Your task to perform on an android device: Search for "usb-a to usb-b" on target, select the first entry, and add it to the cart. Image 0: 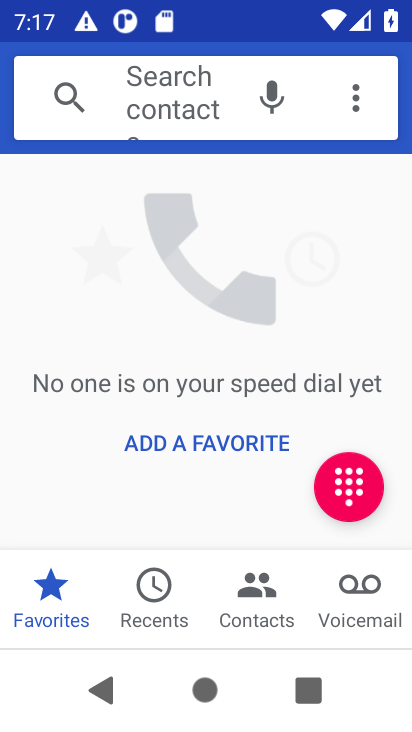
Step 0: press home button
Your task to perform on an android device: Search for "usb-a to usb-b" on target, select the first entry, and add it to the cart. Image 1: 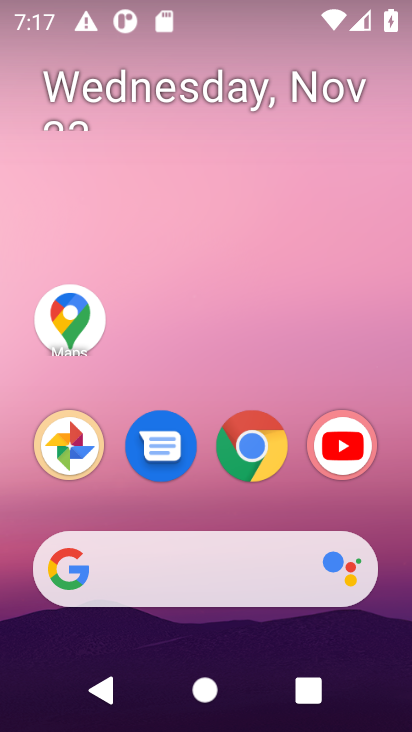
Step 1: click (208, 566)
Your task to perform on an android device: Search for "usb-a to usb-b" on target, select the first entry, and add it to the cart. Image 2: 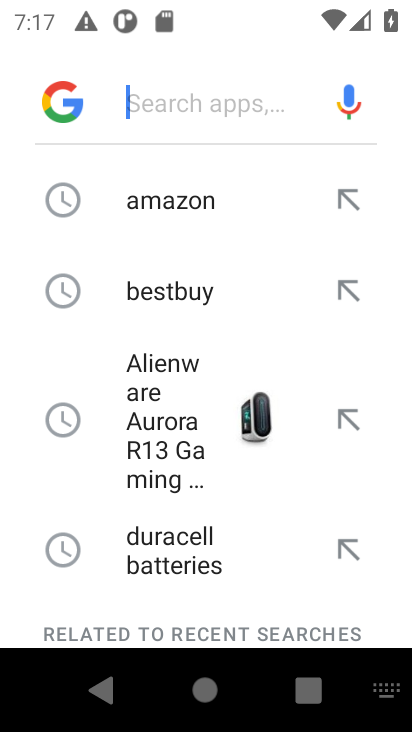
Step 2: type "target.com"
Your task to perform on an android device: Search for "usb-a to usb-b" on target, select the first entry, and add it to the cart. Image 3: 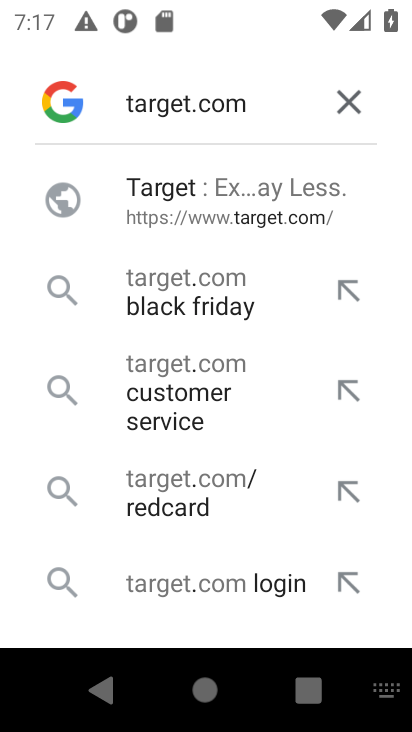
Step 3: click (175, 227)
Your task to perform on an android device: Search for "usb-a to usb-b" on target, select the first entry, and add it to the cart. Image 4: 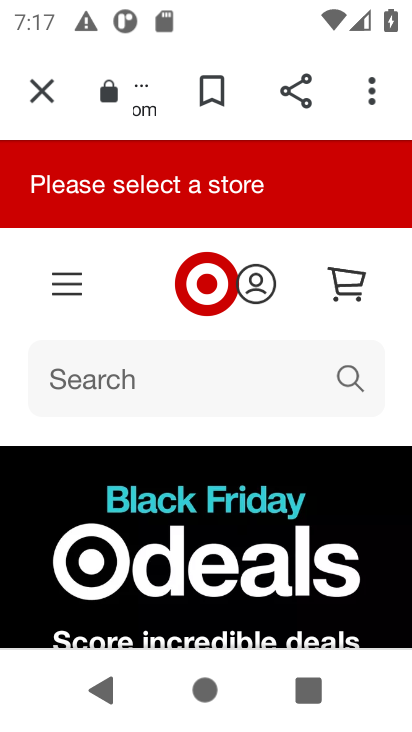
Step 4: click (112, 368)
Your task to perform on an android device: Search for "usb-a to usb-b" on target, select the first entry, and add it to the cart. Image 5: 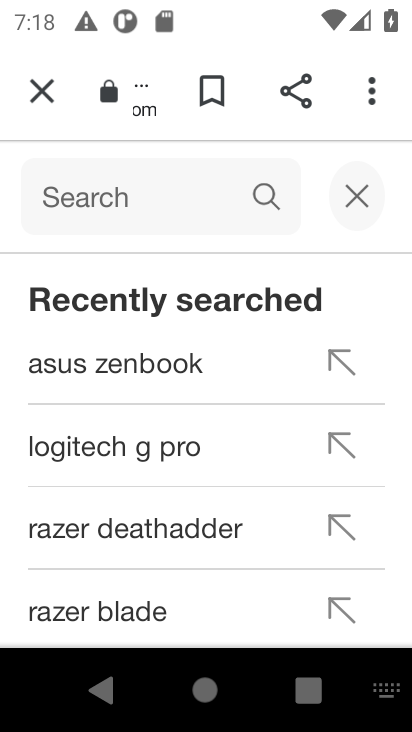
Step 5: type "usb-a to usb-b"
Your task to perform on an android device: Search for "usb-a to usb-b" on target, select the first entry, and add it to the cart. Image 6: 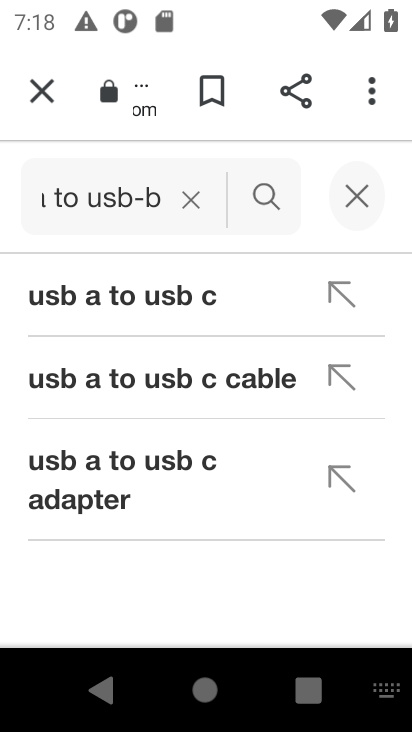
Step 6: click (202, 276)
Your task to perform on an android device: Search for "usb-a to usb-b" on target, select the first entry, and add it to the cart. Image 7: 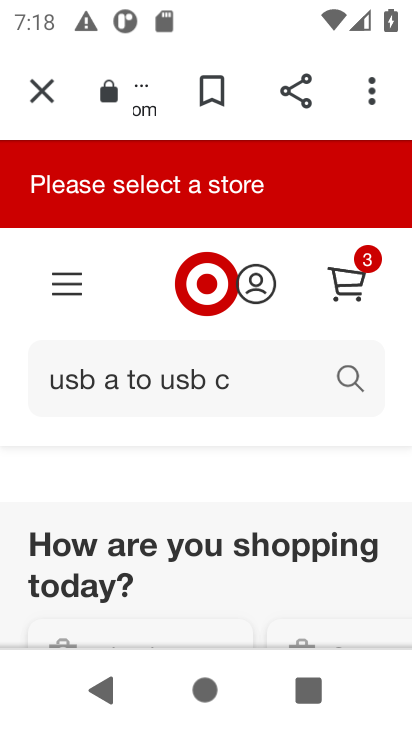
Step 7: task complete